Your task to perform on an android device: turn off data saver in the chrome app Image 0: 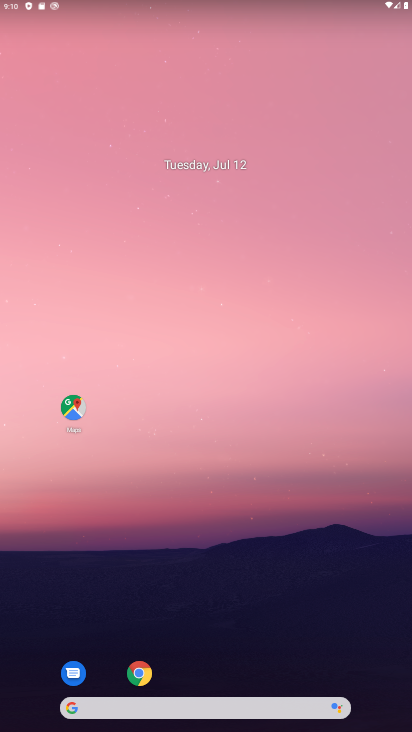
Step 0: click (146, 667)
Your task to perform on an android device: turn off data saver in the chrome app Image 1: 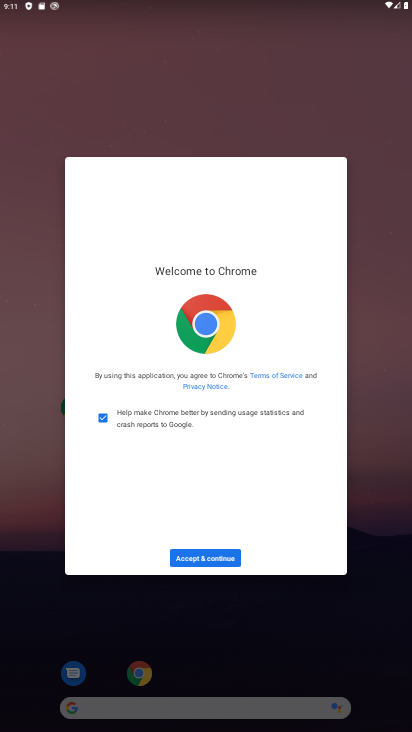
Step 1: click (199, 551)
Your task to perform on an android device: turn off data saver in the chrome app Image 2: 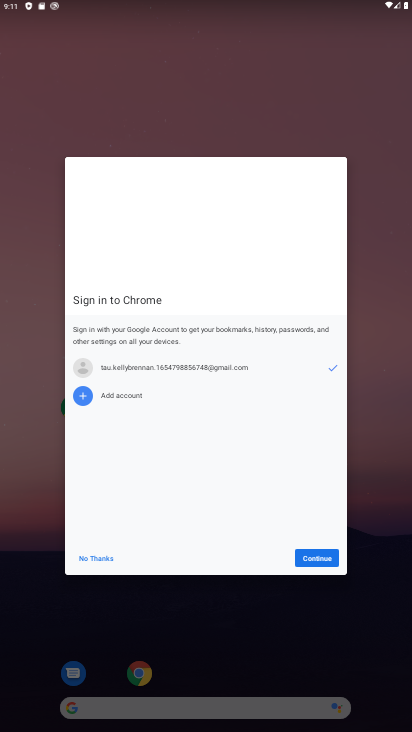
Step 2: click (302, 556)
Your task to perform on an android device: turn off data saver in the chrome app Image 3: 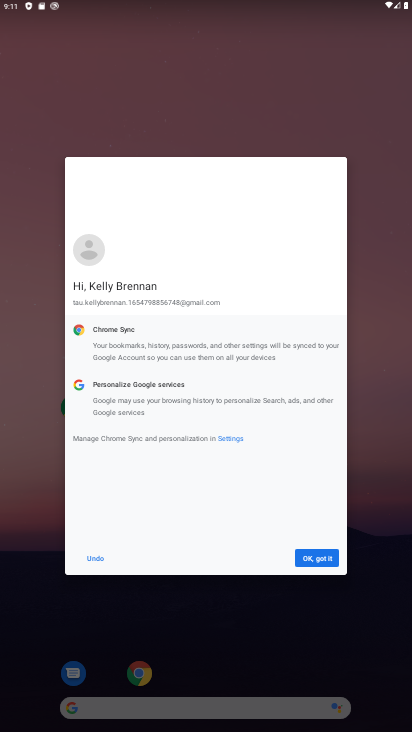
Step 3: click (310, 560)
Your task to perform on an android device: turn off data saver in the chrome app Image 4: 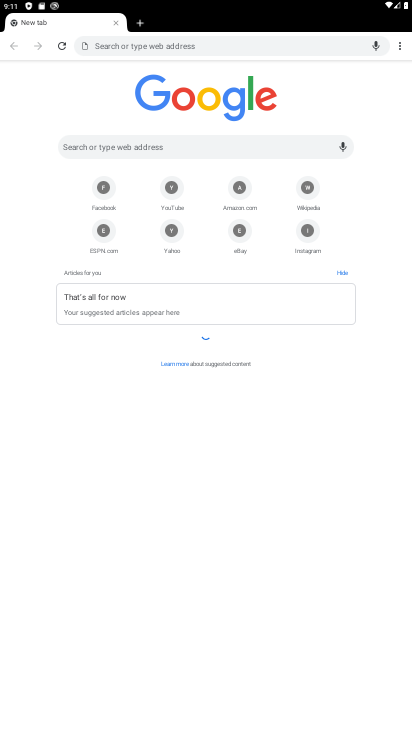
Step 4: click (395, 44)
Your task to perform on an android device: turn off data saver in the chrome app Image 5: 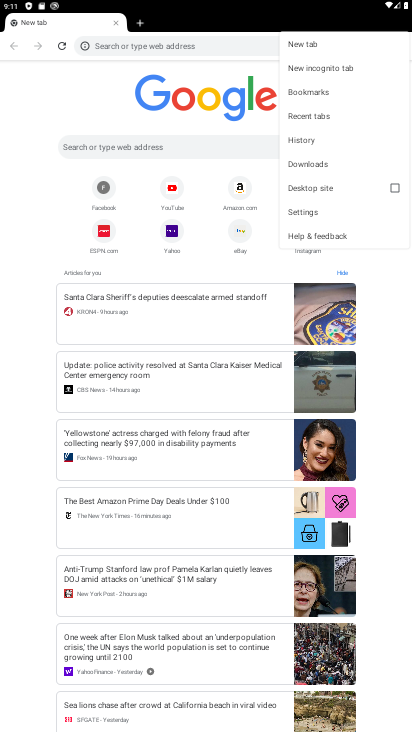
Step 5: click (294, 210)
Your task to perform on an android device: turn off data saver in the chrome app Image 6: 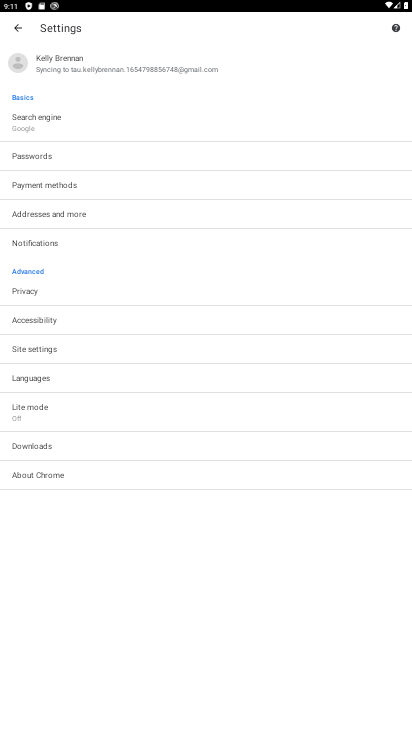
Step 6: click (27, 408)
Your task to perform on an android device: turn off data saver in the chrome app Image 7: 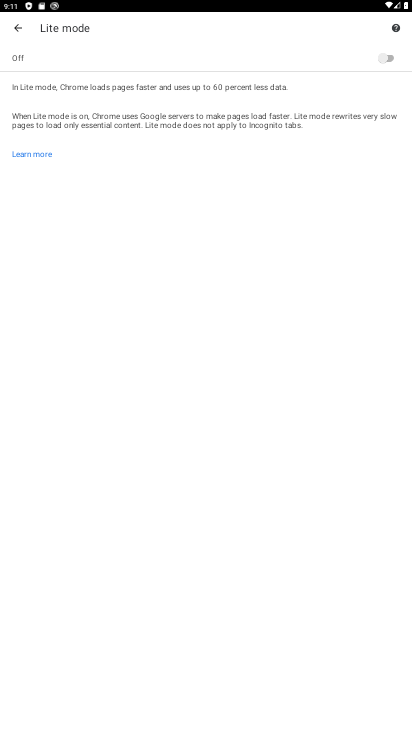
Step 7: task complete